Your task to perform on an android device: toggle priority inbox in the gmail app Image 0: 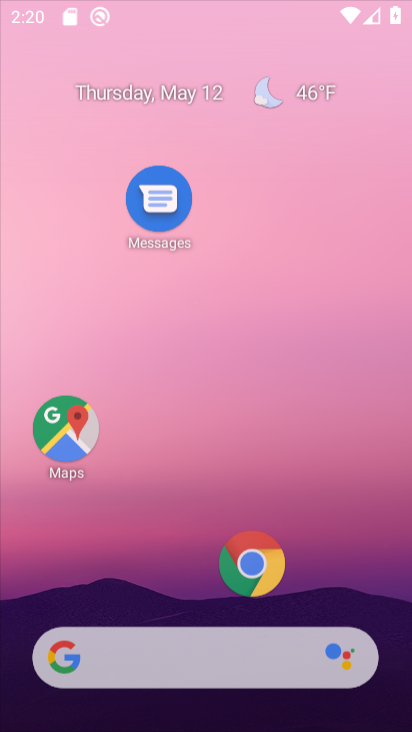
Step 0: click (262, 394)
Your task to perform on an android device: toggle priority inbox in the gmail app Image 1: 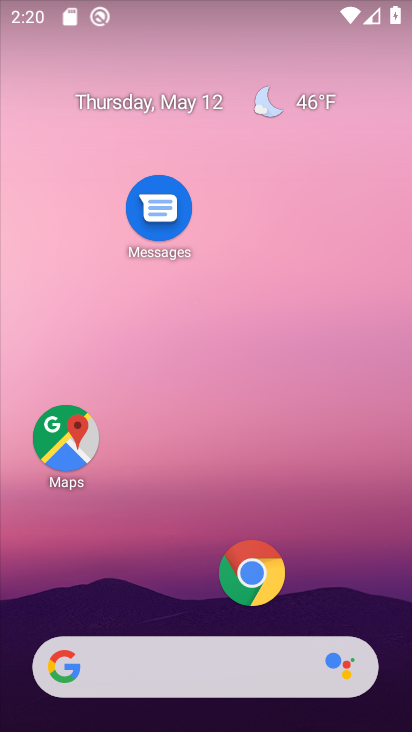
Step 1: drag from (208, 608) to (278, 276)
Your task to perform on an android device: toggle priority inbox in the gmail app Image 2: 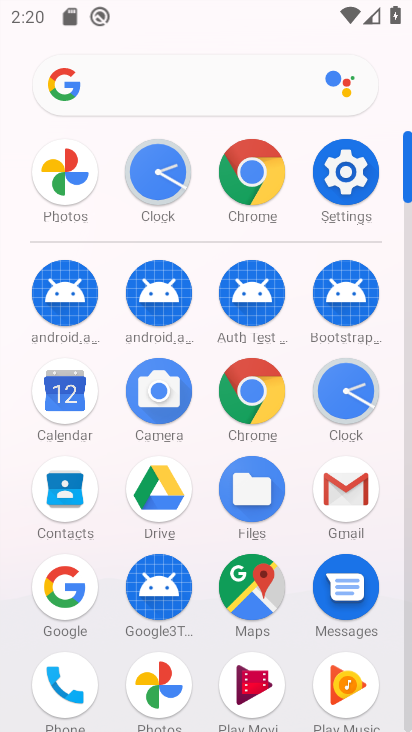
Step 2: click (354, 488)
Your task to perform on an android device: toggle priority inbox in the gmail app Image 3: 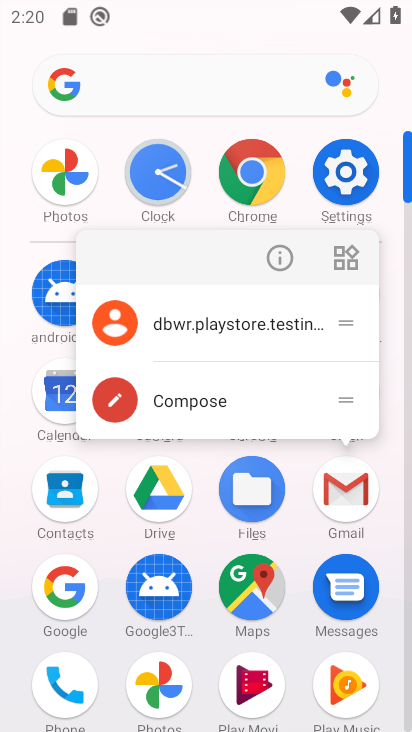
Step 3: click (295, 257)
Your task to perform on an android device: toggle priority inbox in the gmail app Image 4: 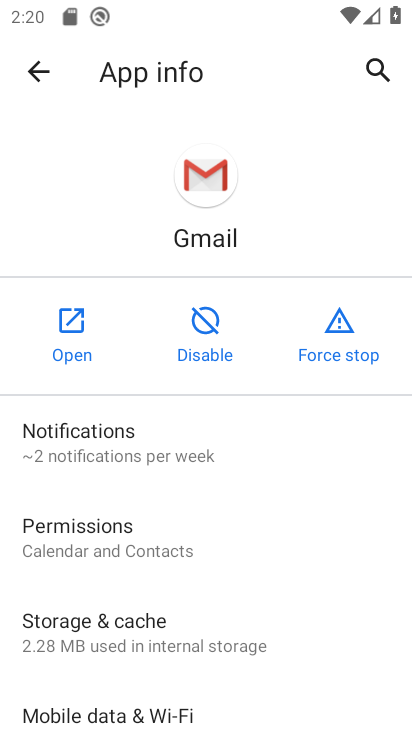
Step 4: click (89, 336)
Your task to perform on an android device: toggle priority inbox in the gmail app Image 5: 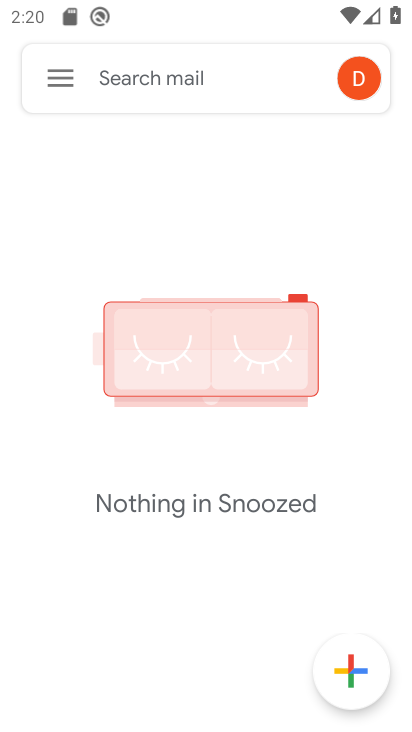
Step 5: click (70, 64)
Your task to perform on an android device: toggle priority inbox in the gmail app Image 6: 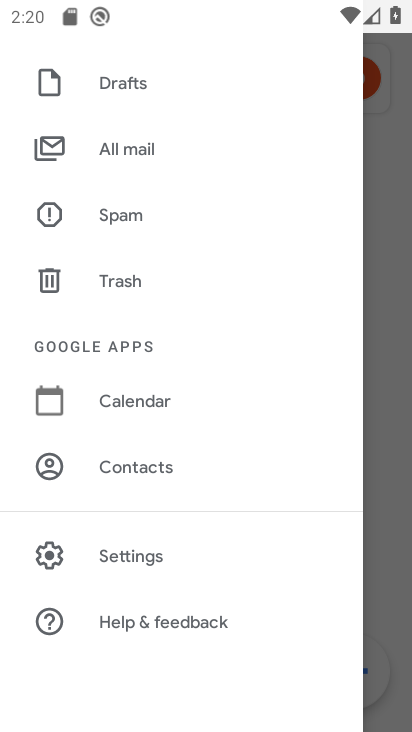
Step 6: drag from (145, 543) to (286, 111)
Your task to perform on an android device: toggle priority inbox in the gmail app Image 7: 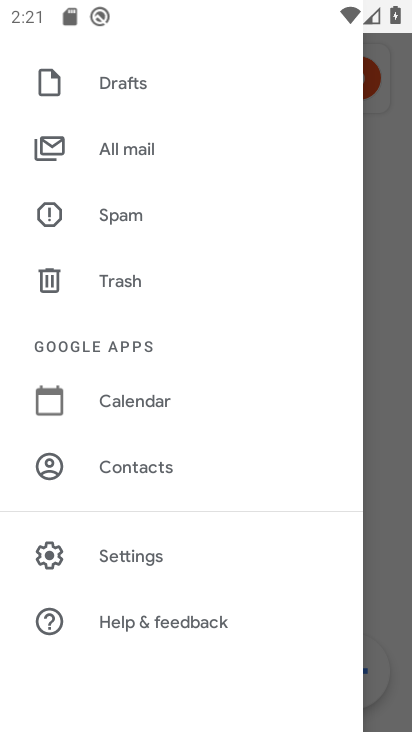
Step 7: click (143, 537)
Your task to perform on an android device: toggle priority inbox in the gmail app Image 8: 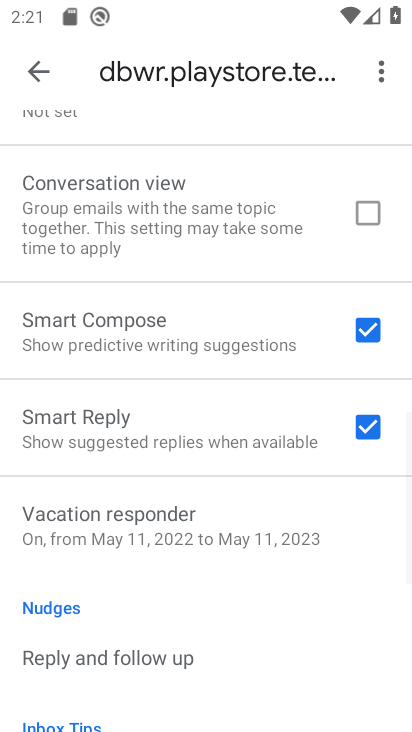
Step 8: drag from (221, 691) to (289, 144)
Your task to perform on an android device: toggle priority inbox in the gmail app Image 9: 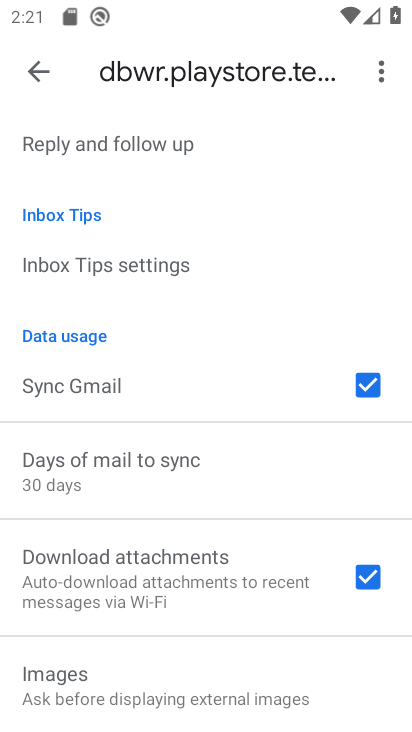
Step 9: drag from (186, 529) to (301, 159)
Your task to perform on an android device: toggle priority inbox in the gmail app Image 10: 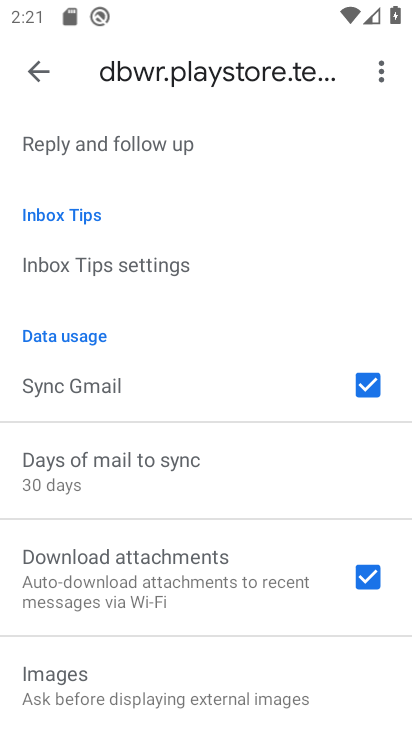
Step 10: drag from (242, 184) to (265, 731)
Your task to perform on an android device: toggle priority inbox in the gmail app Image 11: 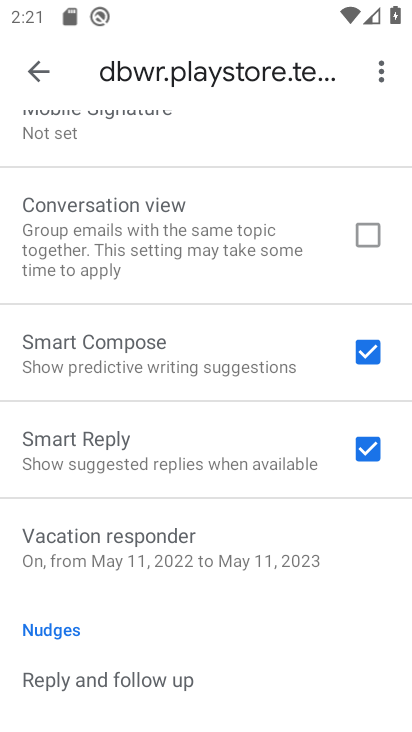
Step 11: drag from (222, 263) to (276, 729)
Your task to perform on an android device: toggle priority inbox in the gmail app Image 12: 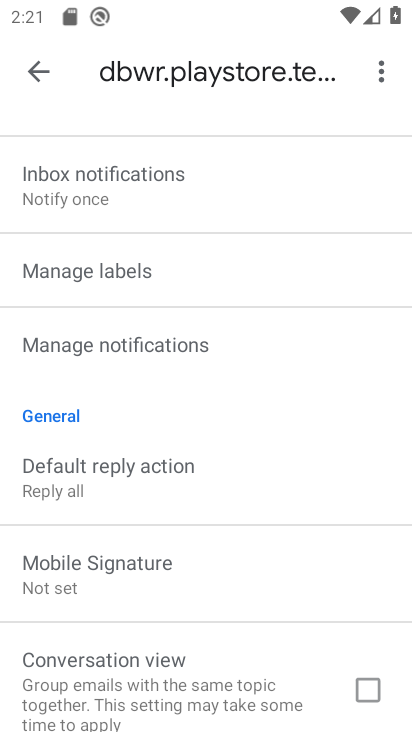
Step 12: drag from (196, 303) to (288, 714)
Your task to perform on an android device: toggle priority inbox in the gmail app Image 13: 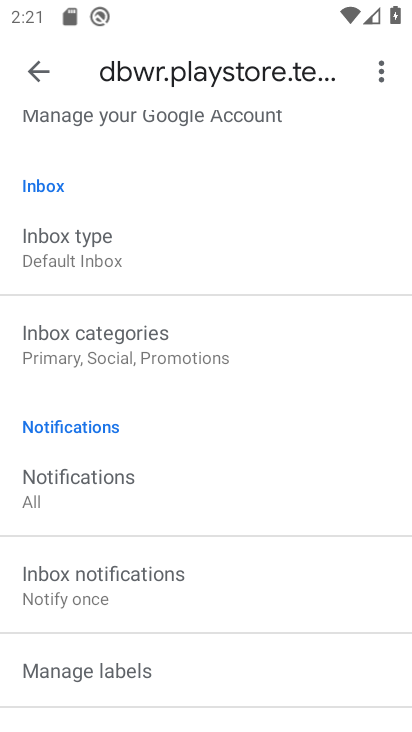
Step 13: click (120, 263)
Your task to perform on an android device: toggle priority inbox in the gmail app Image 14: 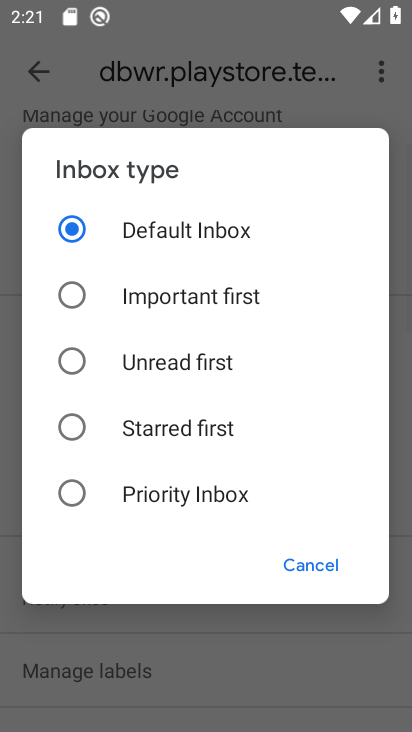
Step 14: click (133, 492)
Your task to perform on an android device: toggle priority inbox in the gmail app Image 15: 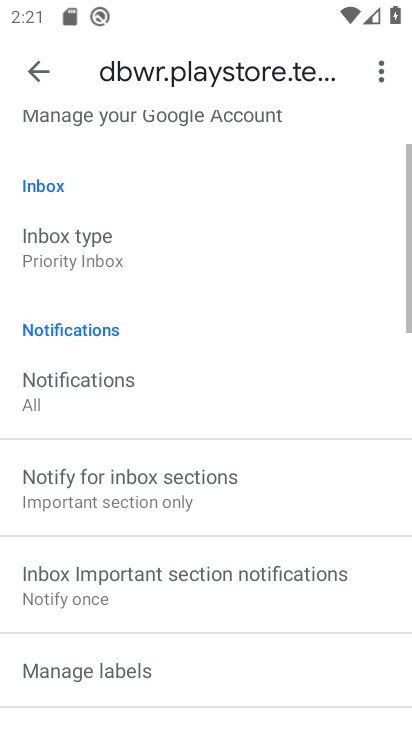
Step 15: task complete